Your task to perform on an android device: toggle pop-ups in chrome Image 0: 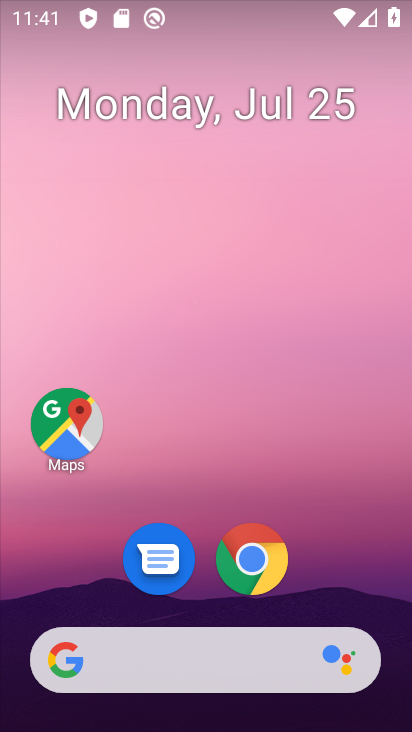
Step 0: click (246, 567)
Your task to perform on an android device: toggle pop-ups in chrome Image 1: 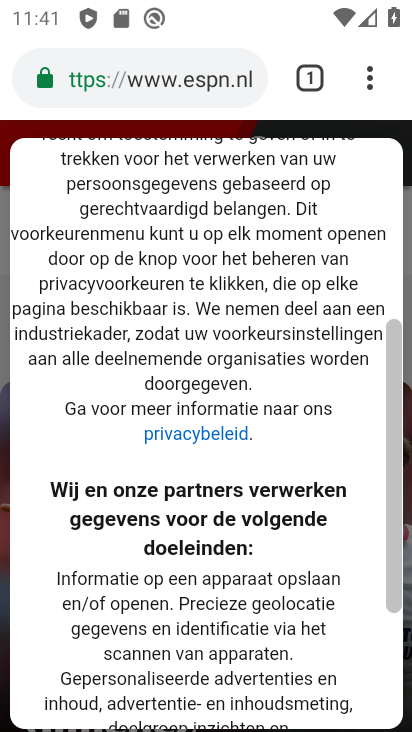
Step 1: drag from (368, 76) to (155, 606)
Your task to perform on an android device: toggle pop-ups in chrome Image 2: 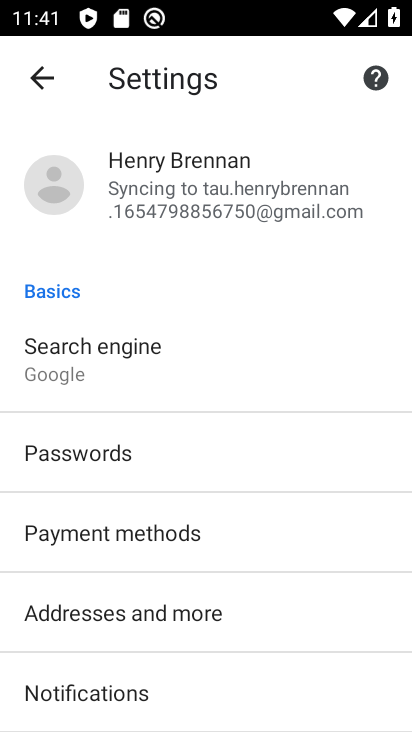
Step 2: drag from (144, 699) to (292, 102)
Your task to perform on an android device: toggle pop-ups in chrome Image 3: 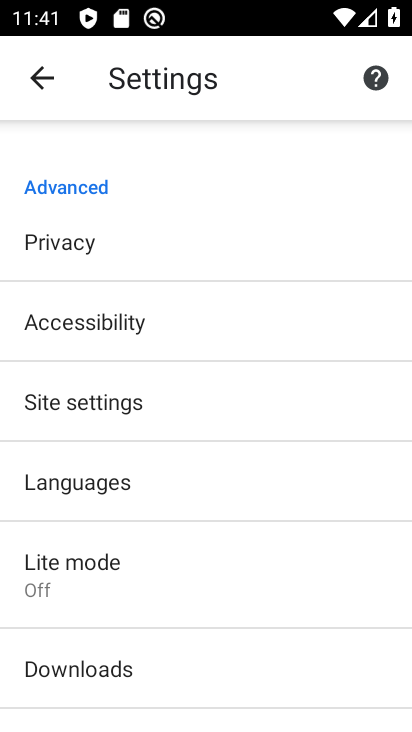
Step 3: click (139, 399)
Your task to perform on an android device: toggle pop-ups in chrome Image 4: 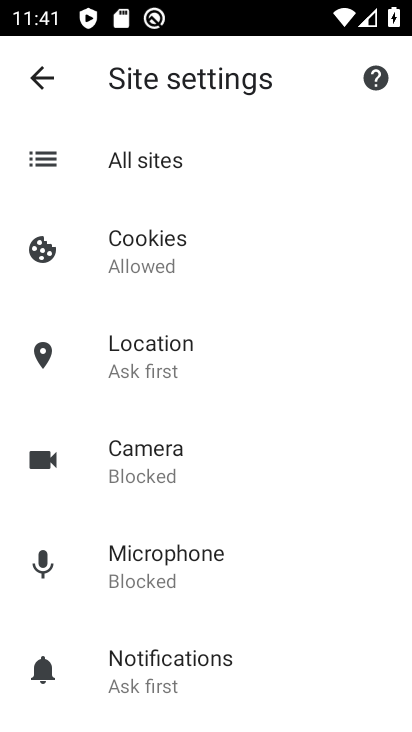
Step 4: drag from (245, 594) to (260, 132)
Your task to perform on an android device: toggle pop-ups in chrome Image 5: 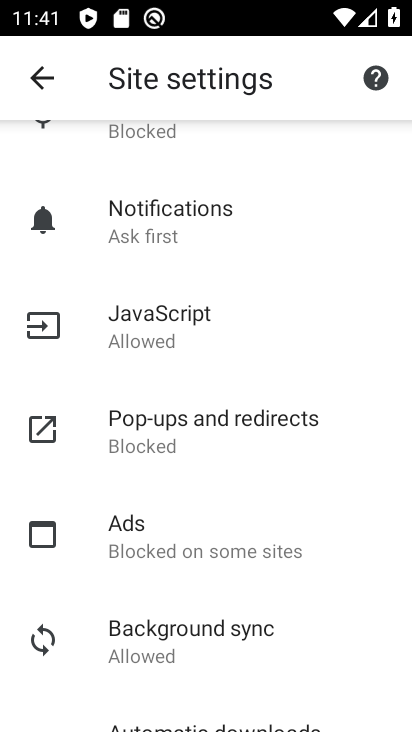
Step 5: click (165, 422)
Your task to perform on an android device: toggle pop-ups in chrome Image 6: 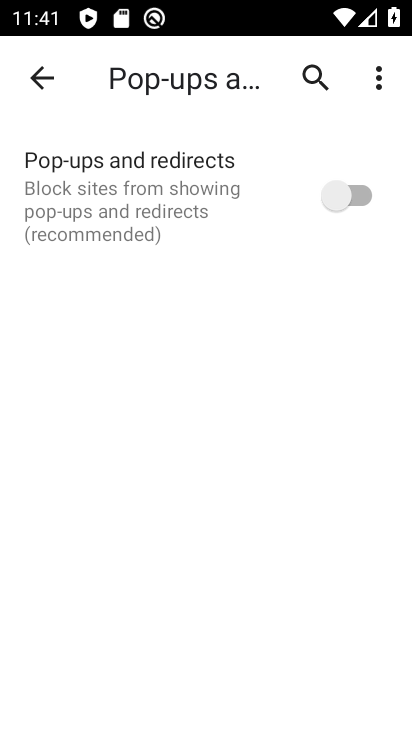
Step 6: click (335, 199)
Your task to perform on an android device: toggle pop-ups in chrome Image 7: 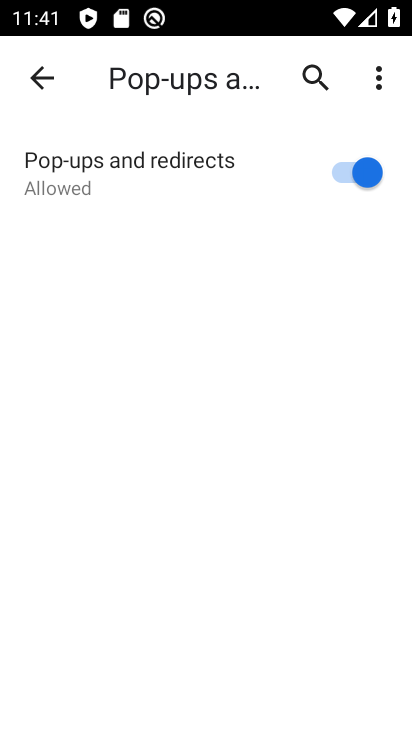
Step 7: task complete